Your task to perform on an android device: turn on the 12-hour format for clock Image 0: 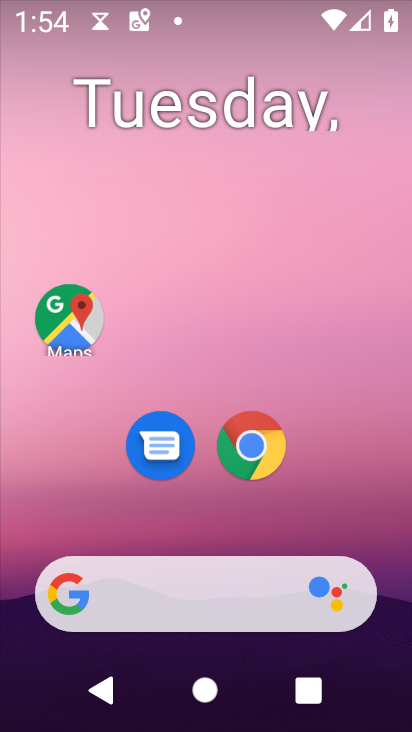
Step 0: drag from (244, 598) to (292, 11)
Your task to perform on an android device: turn on the 12-hour format for clock Image 1: 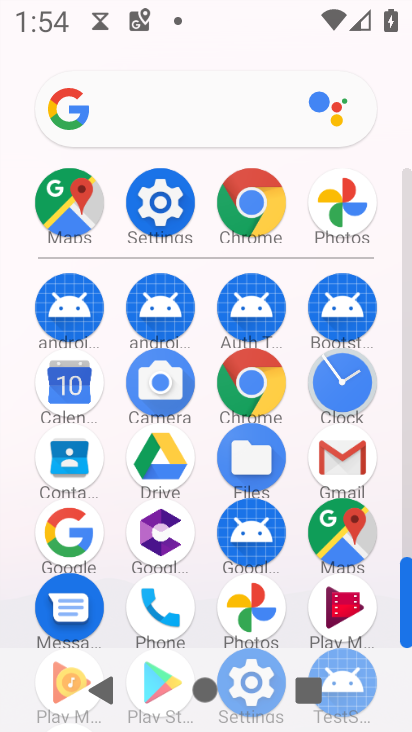
Step 1: click (325, 396)
Your task to perform on an android device: turn on the 12-hour format for clock Image 2: 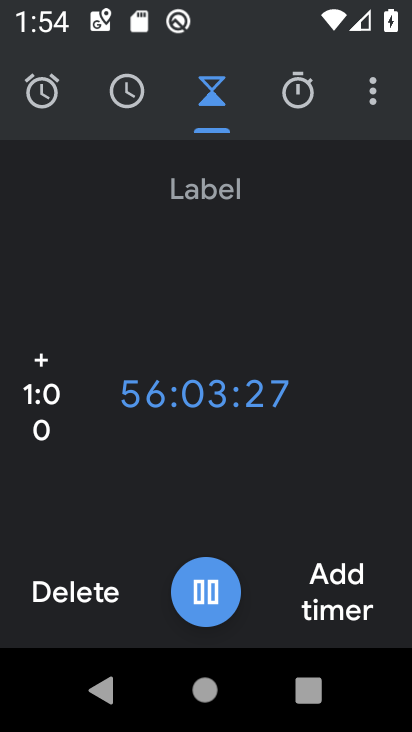
Step 2: click (370, 92)
Your task to perform on an android device: turn on the 12-hour format for clock Image 3: 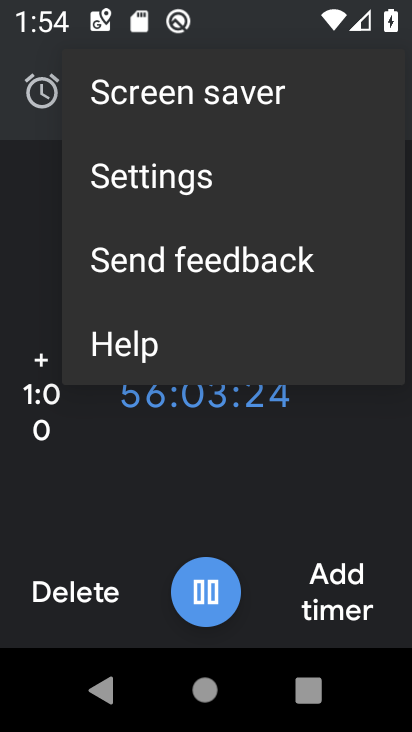
Step 3: click (207, 176)
Your task to perform on an android device: turn on the 12-hour format for clock Image 4: 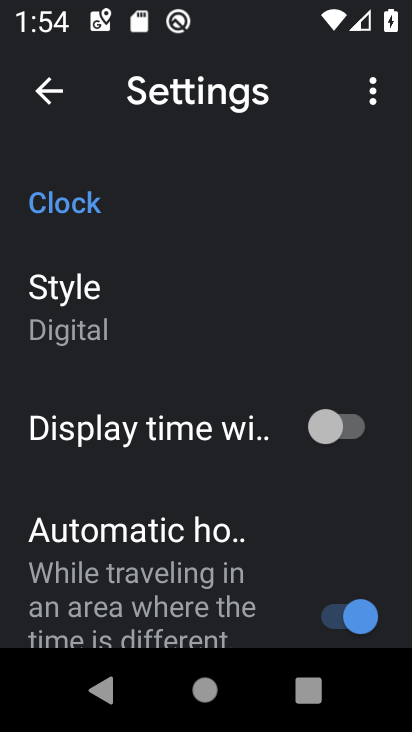
Step 4: drag from (184, 599) to (270, 141)
Your task to perform on an android device: turn on the 12-hour format for clock Image 5: 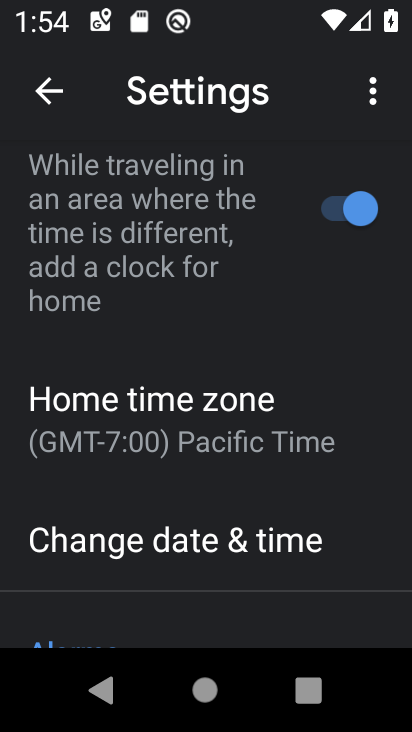
Step 5: click (183, 552)
Your task to perform on an android device: turn on the 12-hour format for clock Image 6: 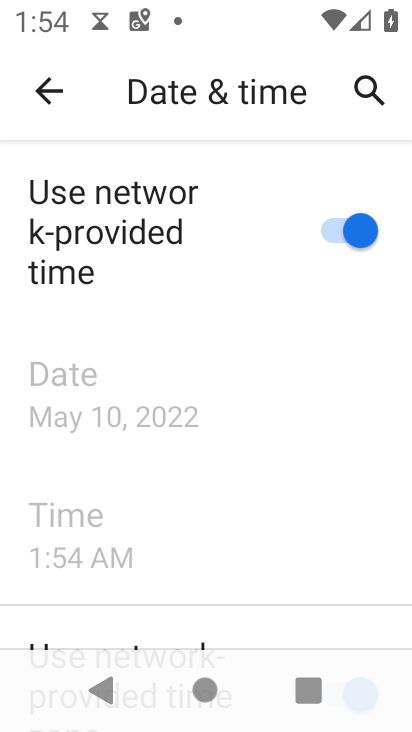
Step 6: task complete